Your task to perform on an android device: Set the phone to "Do not disturb". Image 0: 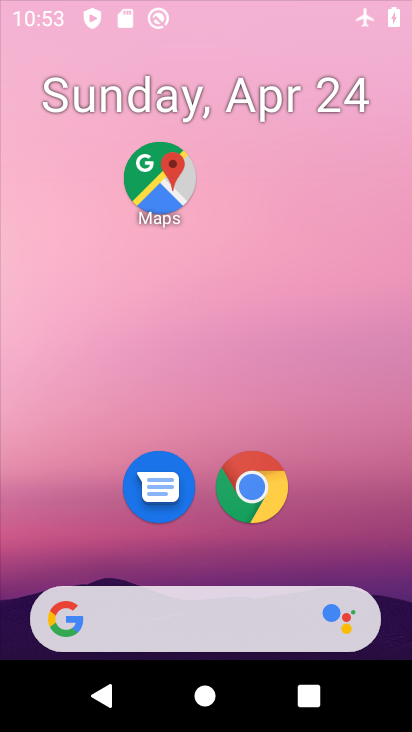
Step 0: drag from (406, 135) to (361, 136)
Your task to perform on an android device: Set the phone to "Do not disturb". Image 1: 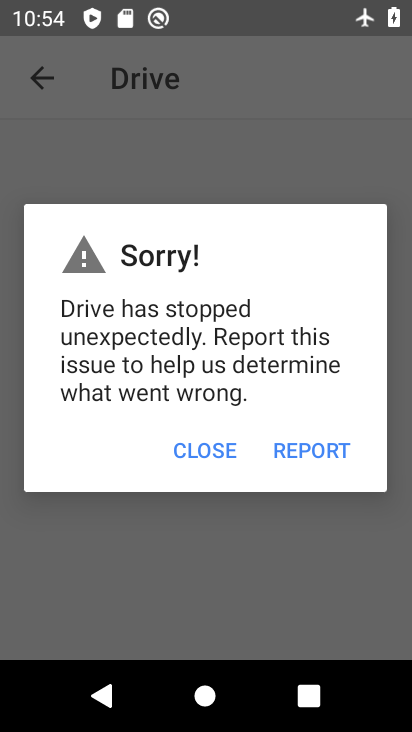
Step 1: press home button
Your task to perform on an android device: Set the phone to "Do not disturb". Image 2: 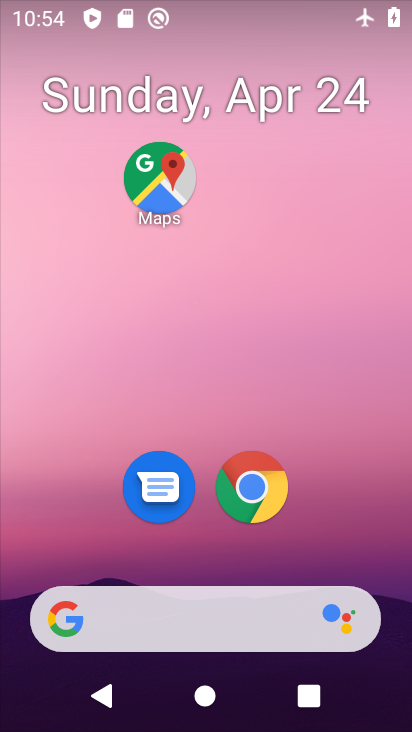
Step 2: drag from (54, 542) to (275, 132)
Your task to perform on an android device: Set the phone to "Do not disturb". Image 3: 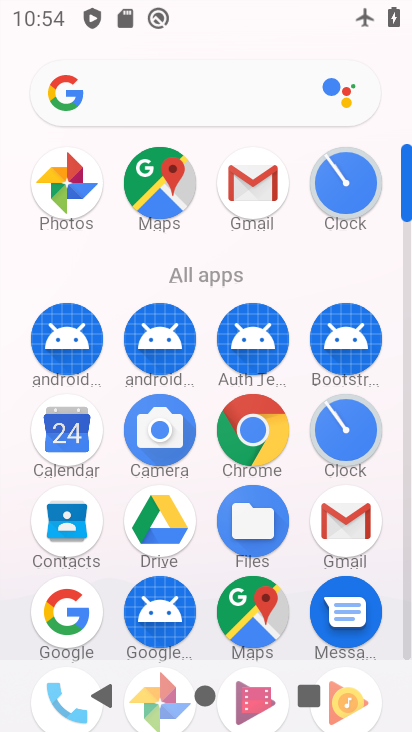
Step 3: drag from (143, 557) to (361, 224)
Your task to perform on an android device: Set the phone to "Do not disturb". Image 4: 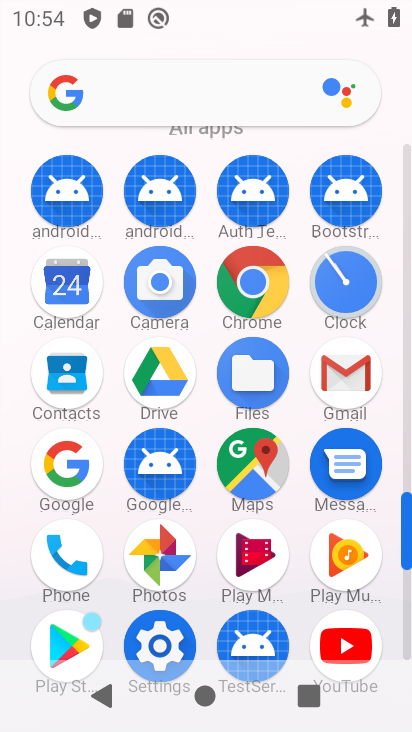
Step 4: drag from (204, 31) to (205, 629)
Your task to perform on an android device: Set the phone to "Do not disturb". Image 5: 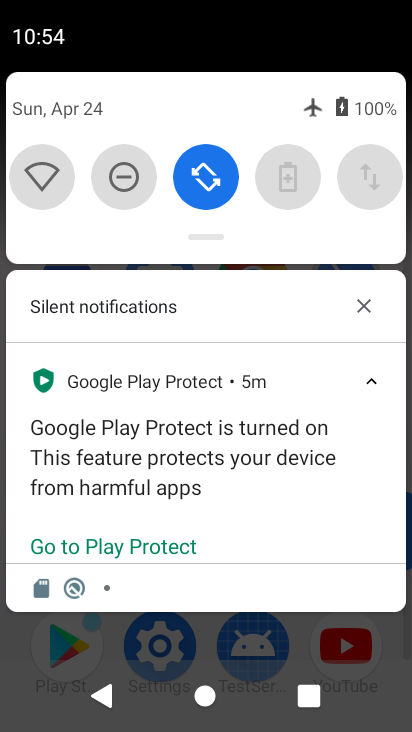
Step 5: click (118, 176)
Your task to perform on an android device: Set the phone to "Do not disturb". Image 6: 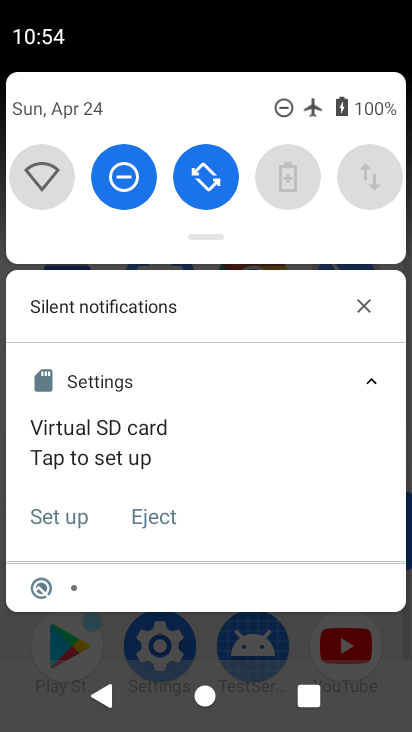
Step 6: task complete